Your task to perform on an android device: When is my next meeting? Image 0: 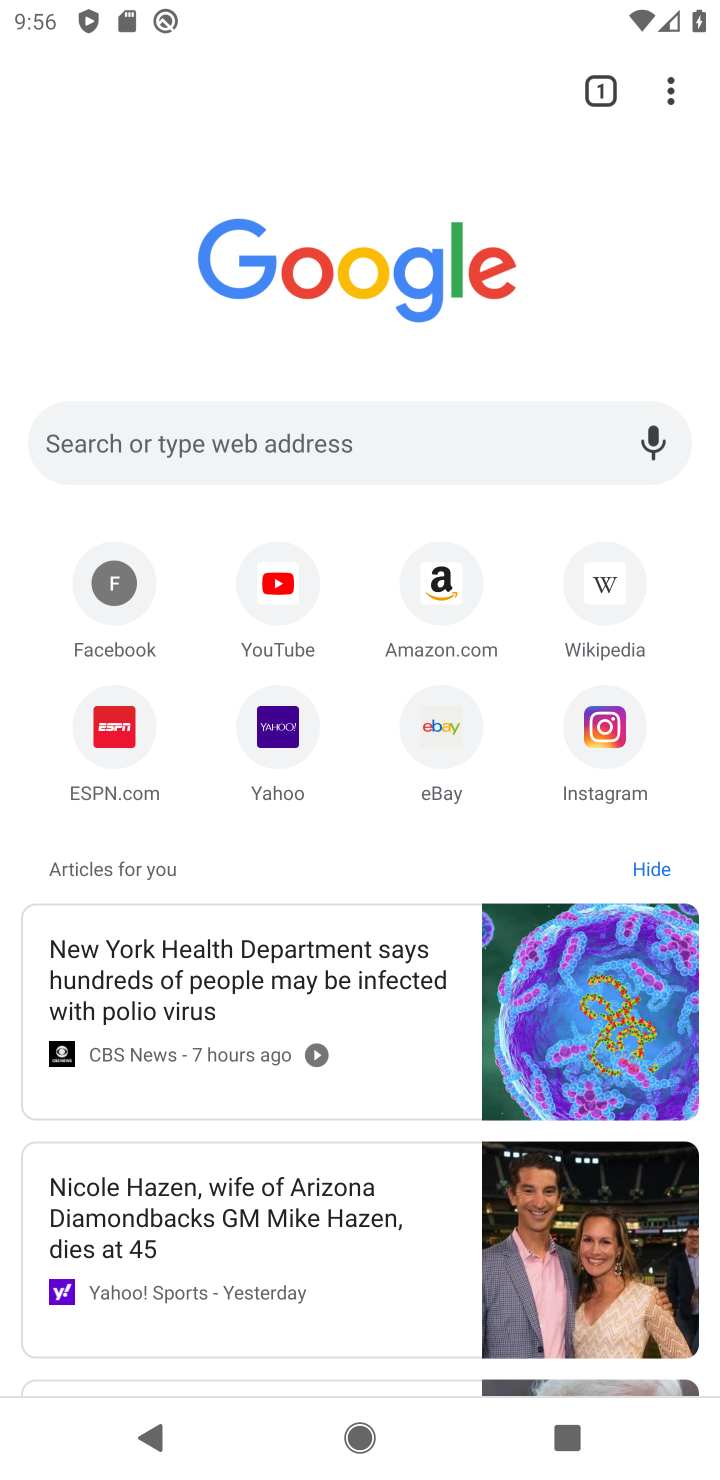
Step 0: press home button
Your task to perform on an android device: When is my next meeting? Image 1: 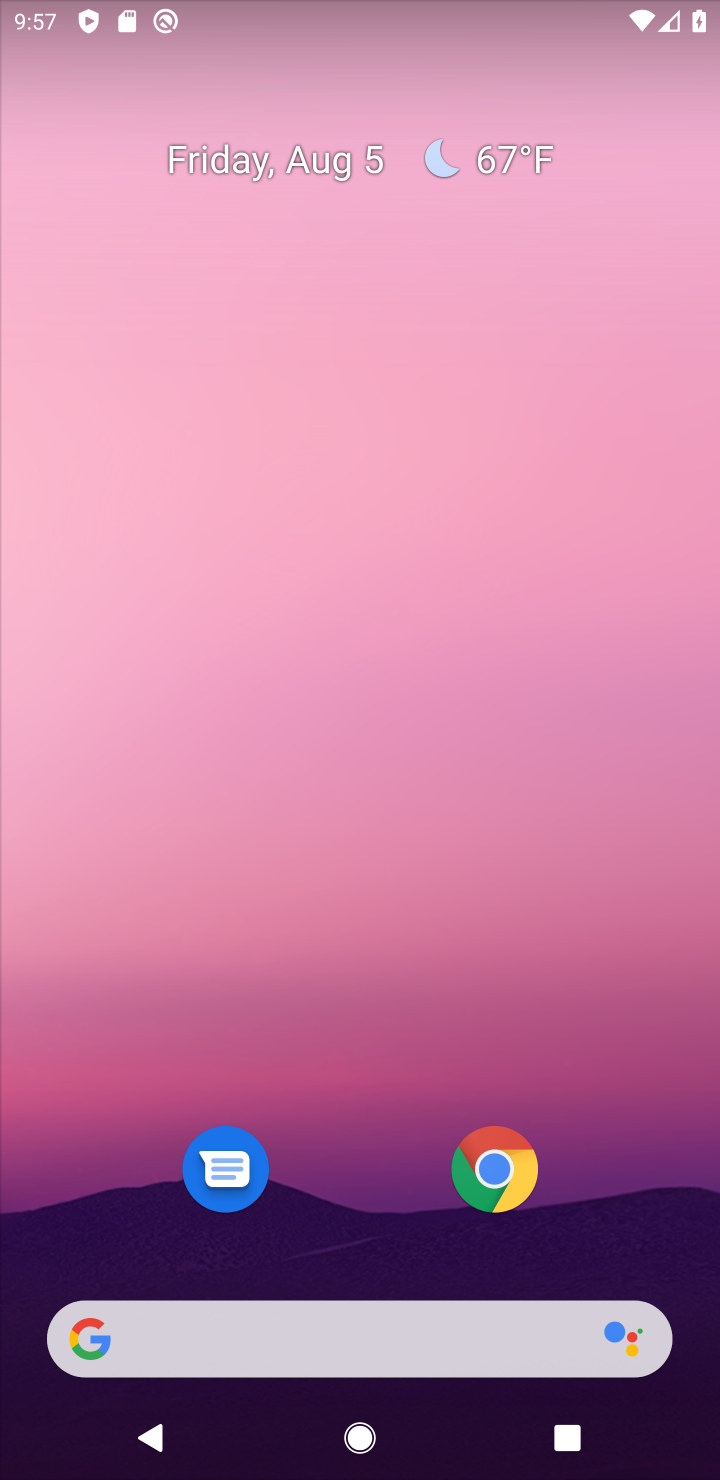
Step 1: drag from (641, 1139) to (597, 261)
Your task to perform on an android device: When is my next meeting? Image 2: 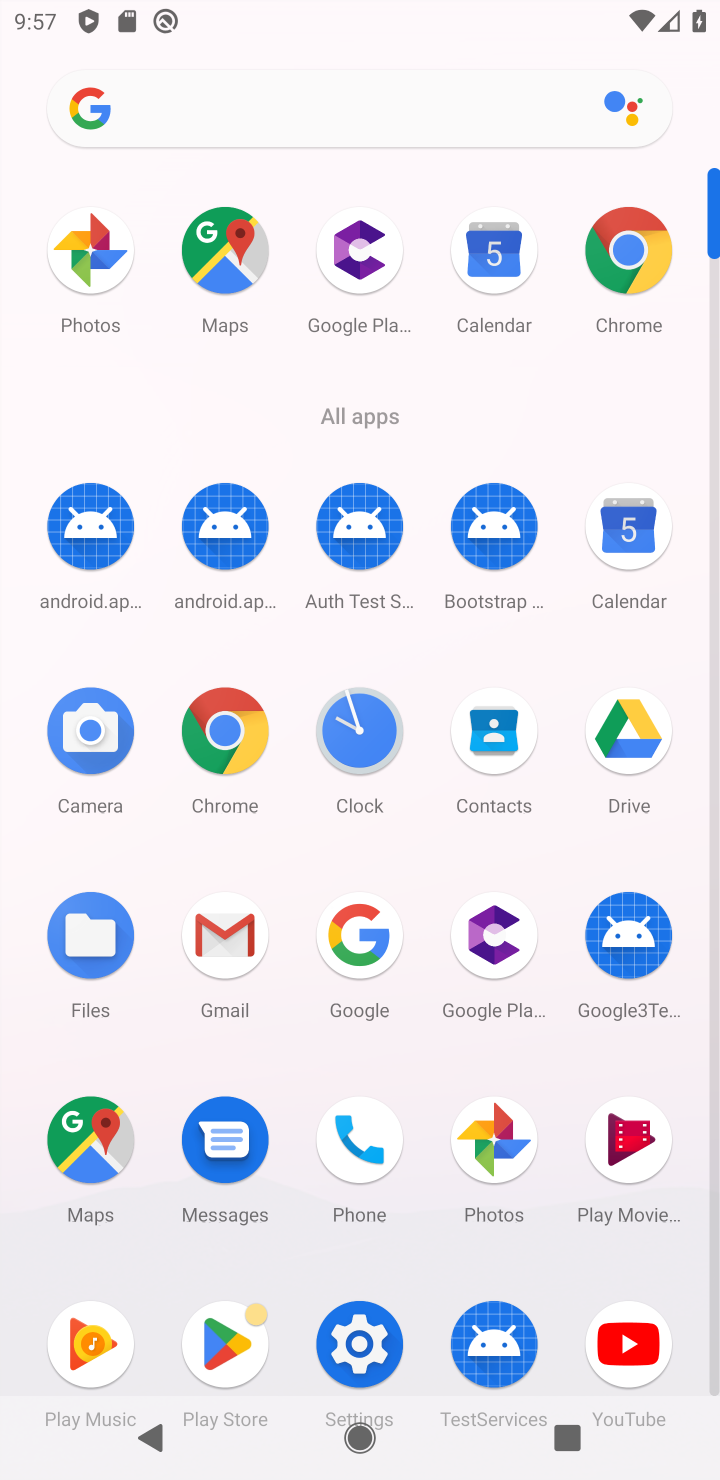
Step 2: click (625, 527)
Your task to perform on an android device: When is my next meeting? Image 3: 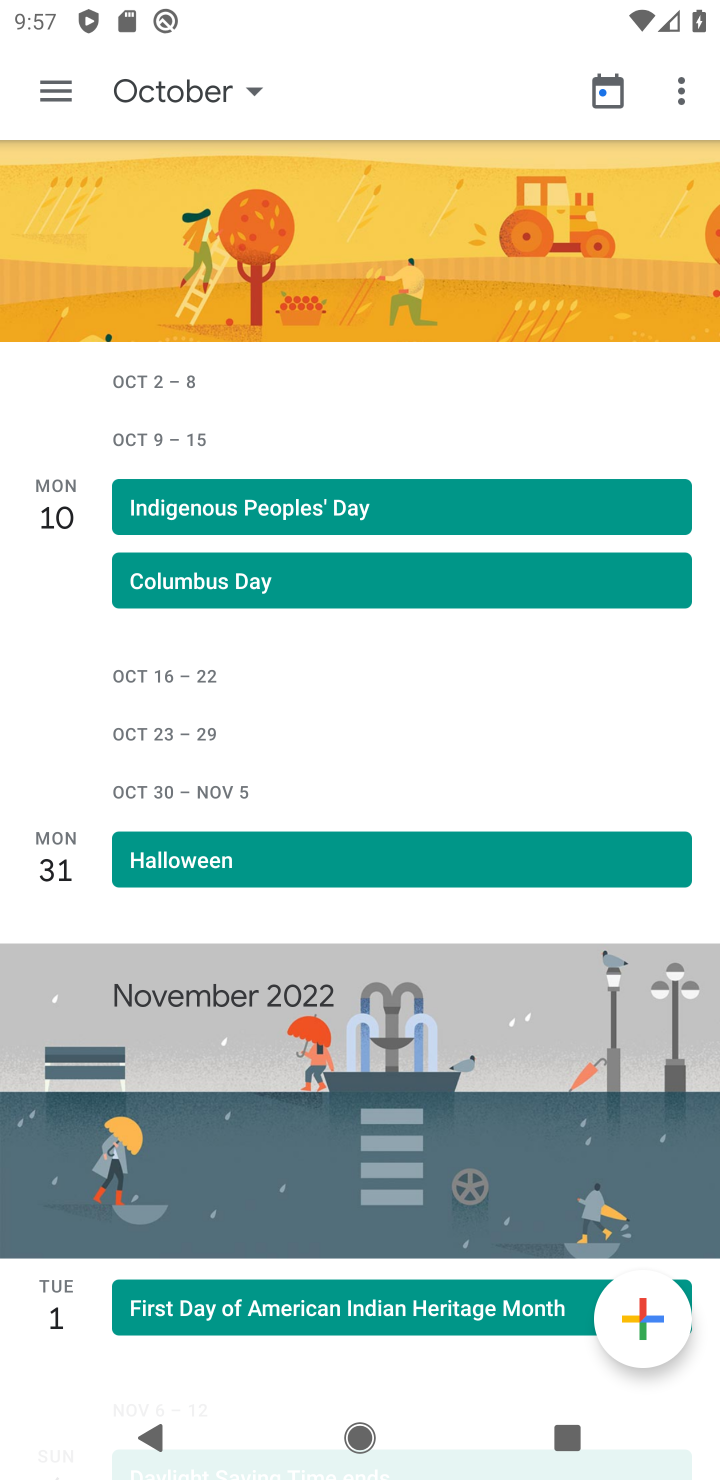
Step 3: task complete